Your task to perform on an android device: change notifications settings Image 0: 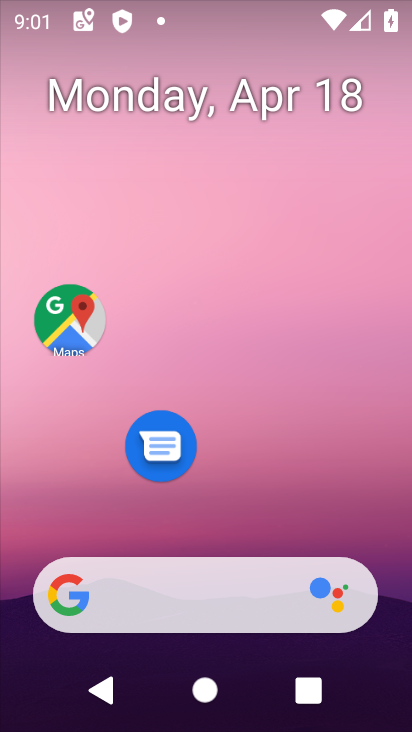
Step 0: press home button
Your task to perform on an android device: change notifications settings Image 1: 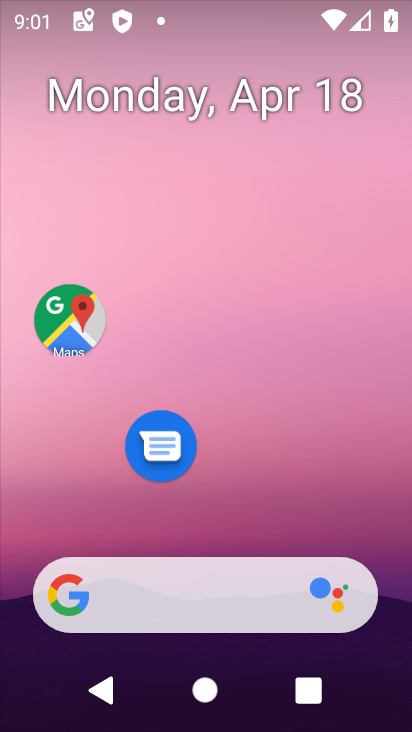
Step 1: drag from (223, 524) to (295, 106)
Your task to perform on an android device: change notifications settings Image 2: 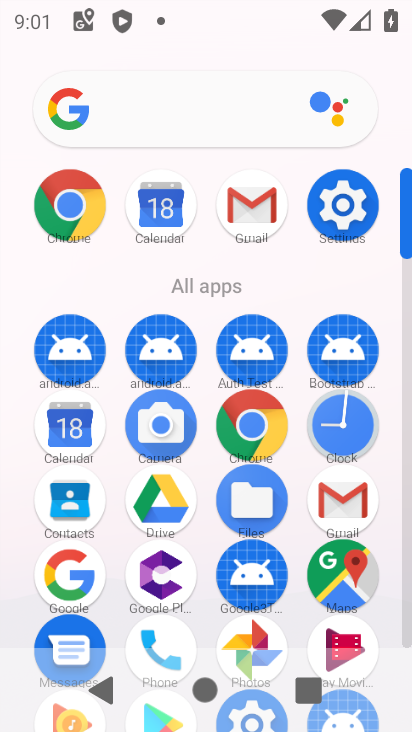
Step 2: click (335, 199)
Your task to perform on an android device: change notifications settings Image 3: 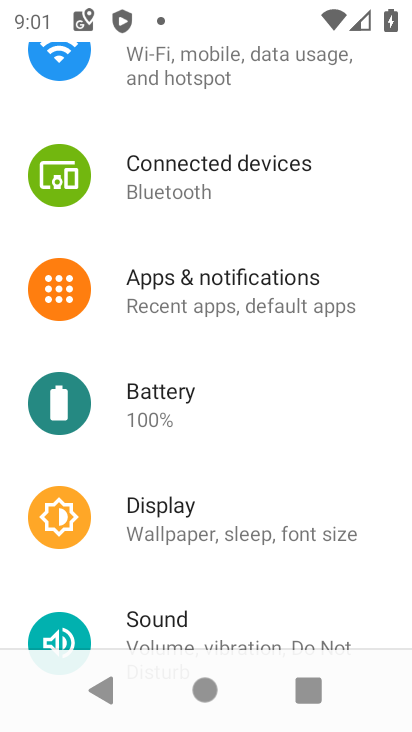
Step 3: click (224, 295)
Your task to perform on an android device: change notifications settings Image 4: 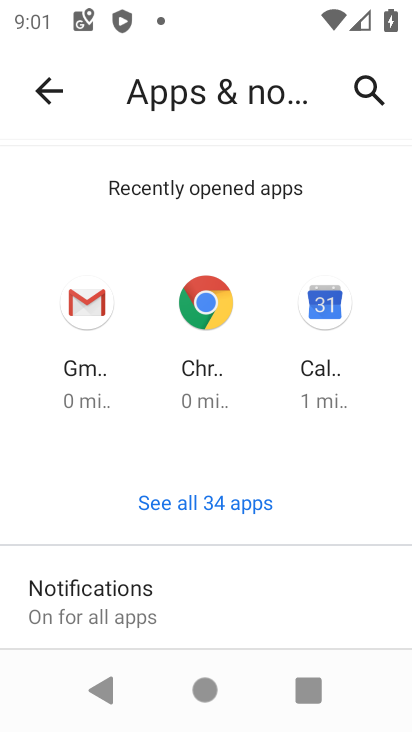
Step 4: click (162, 600)
Your task to perform on an android device: change notifications settings Image 5: 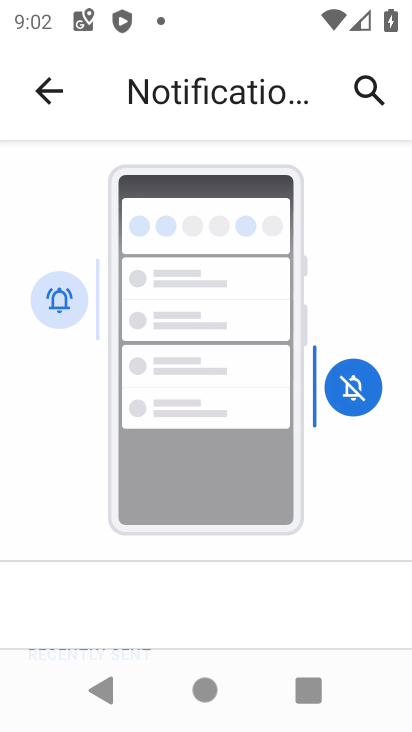
Step 5: drag from (223, 590) to (253, 317)
Your task to perform on an android device: change notifications settings Image 6: 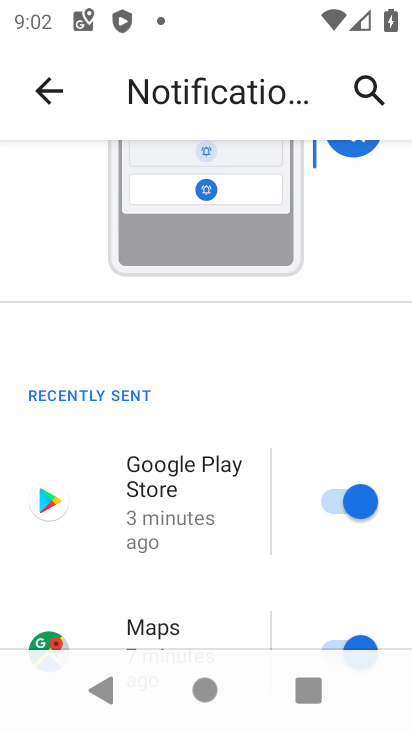
Step 6: drag from (234, 594) to (261, 242)
Your task to perform on an android device: change notifications settings Image 7: 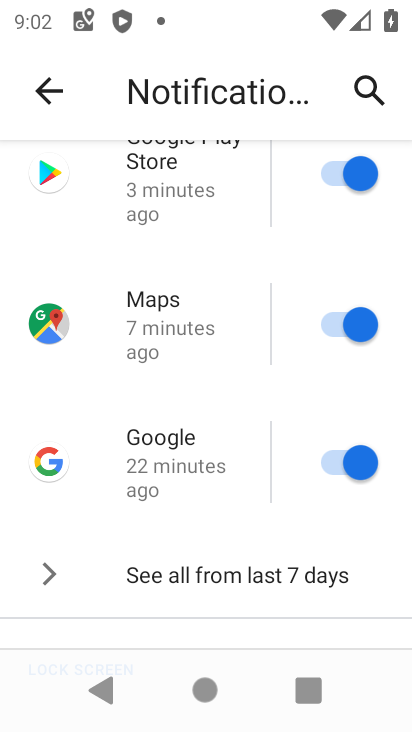
Step 7: drag from (200, 615) to (233, 170)
Your task to perform on an android device: change notifications settings Image 8: 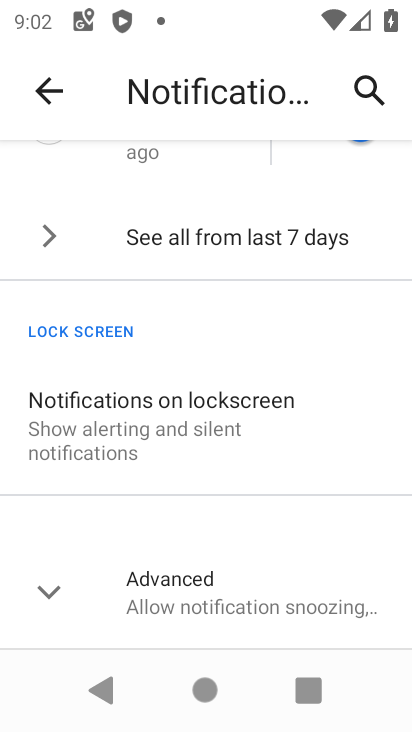
Step 8: drag from (173, 292) to (183, 555)
Your task to perform on an android device: change notifications settings Image 9: 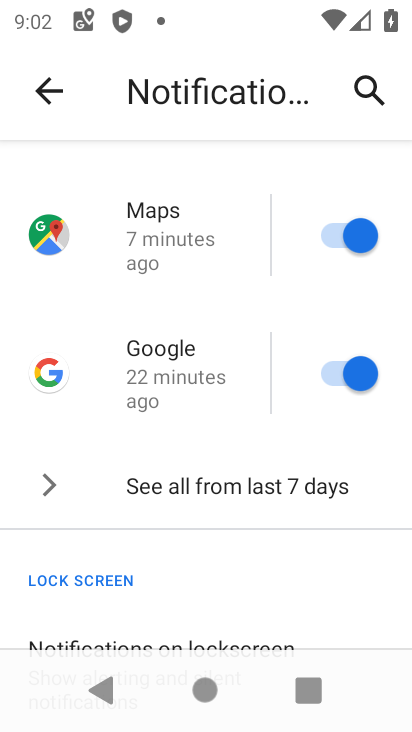
Step 9: click (331, 234)
Your task to perform on an android device: change notifications settings Image 10: 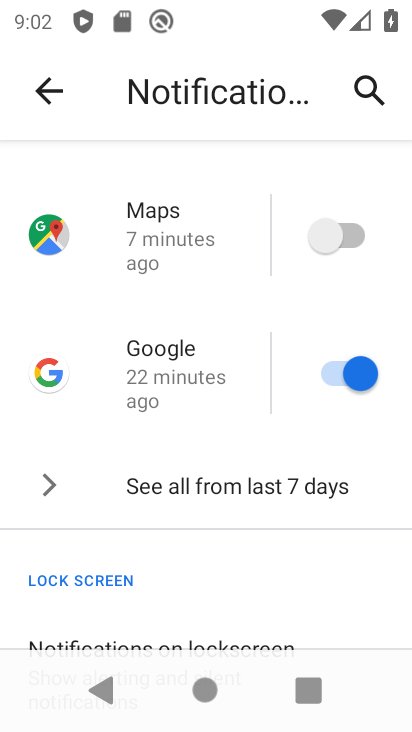
Step 10: click (344, 369)
Your task to perform on an android device: change notifications settings Image 11: 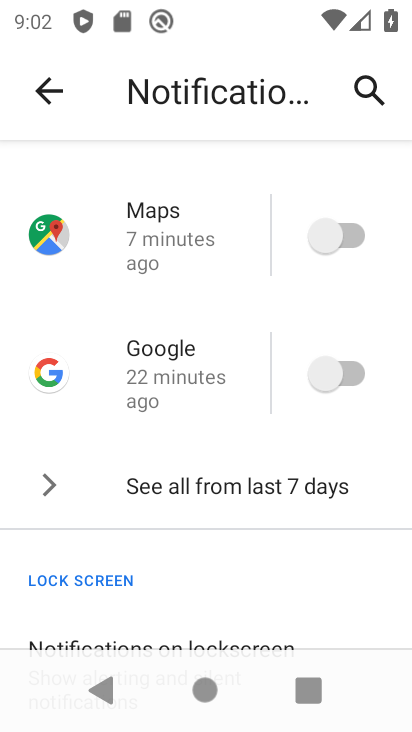
Step 11: drag from (163, 578) to (212, 244)
Your task to perform on an android device: change notifications settings Image 12: 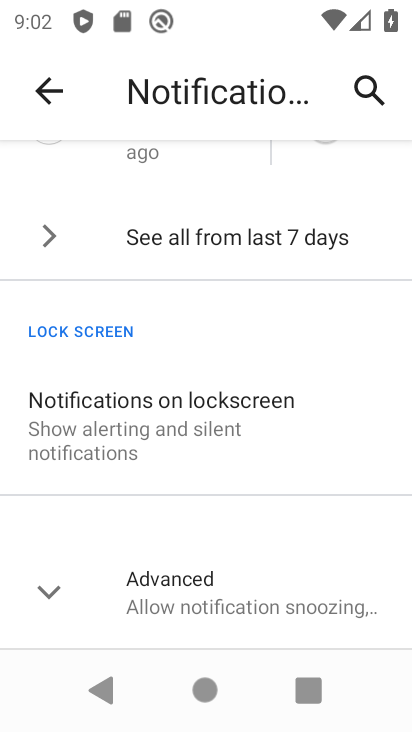
Step 12: click (198, 444)
Your task to perform on an android device: change notifications settings Image 13: 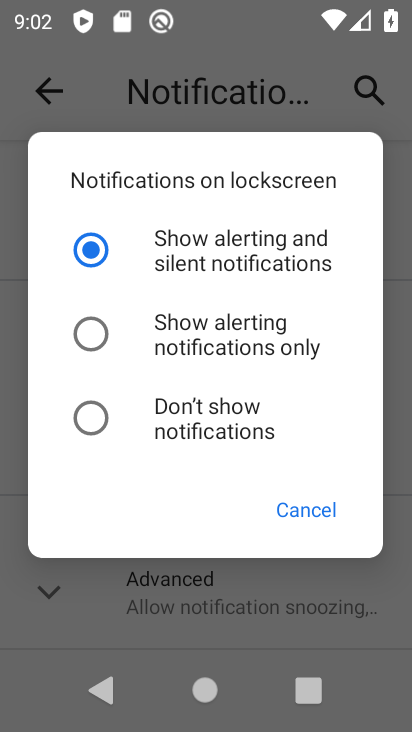
Step 13: click (95, 334)
Your task to perform on an android device: change notifications settings Image 14: 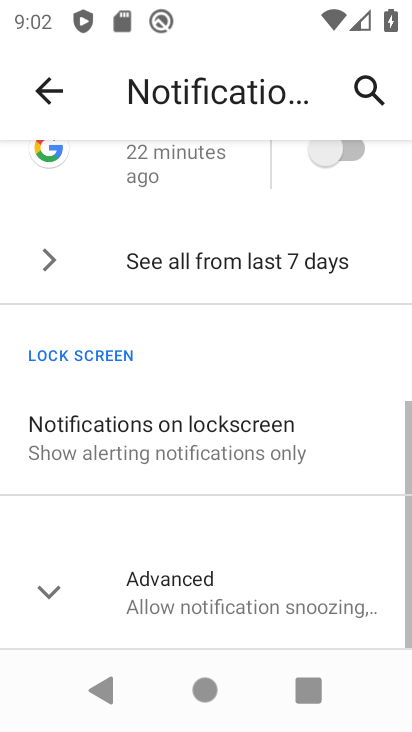
Step 14: task complete